Your task to perform on an android device: turn on javascript in the chrome app Image 0: 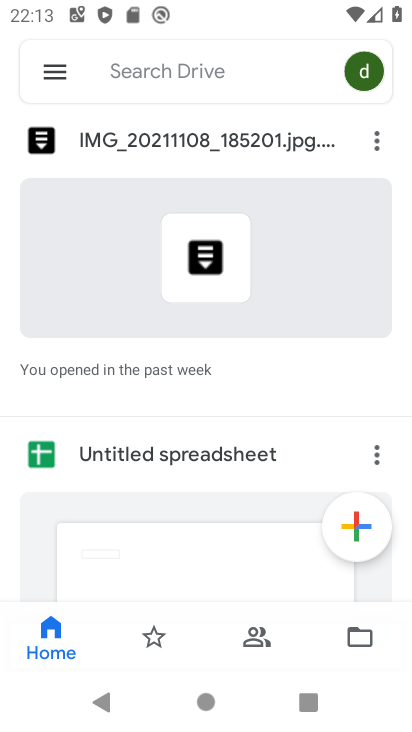
Step 0: press home button
Your task to perform on an android device: turn on javascript in the chrome app Image 1: 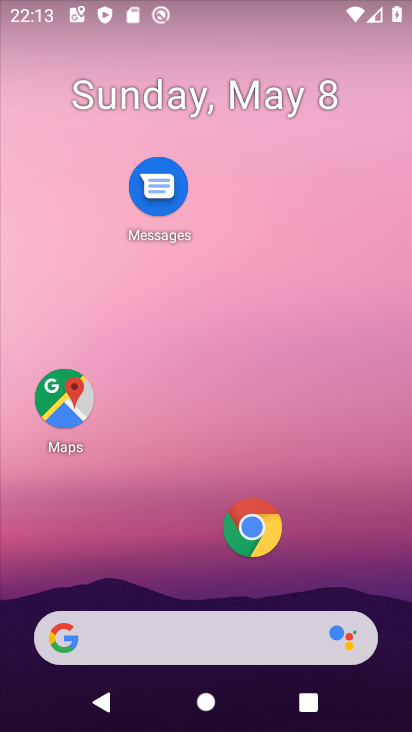
Step 1: click (249, 524)
Your task to perform on an android device: turn on javascript in the chrome app Image 2: 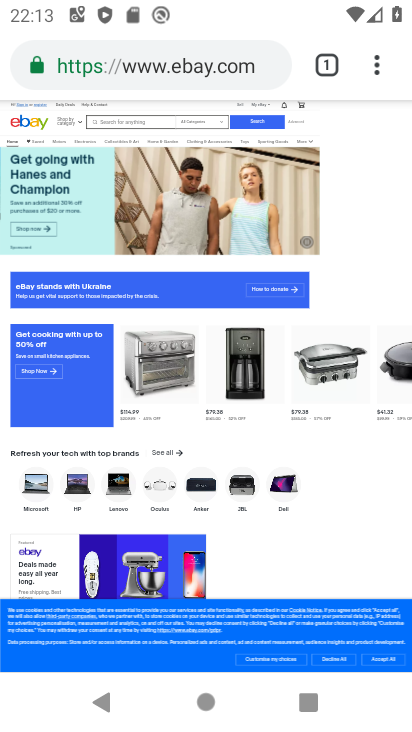
Step 2: click (369, 68)
Your task to perform on an android device: turn on javascript in the chrome app Image 3: 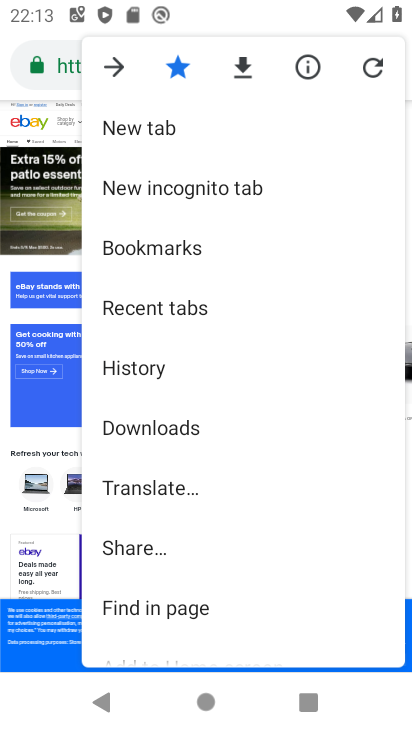
Step 3: drag from (371, 534) to (323, 194)
Your task to perform on an android device: turn on javascript in the chrome app Image 4: 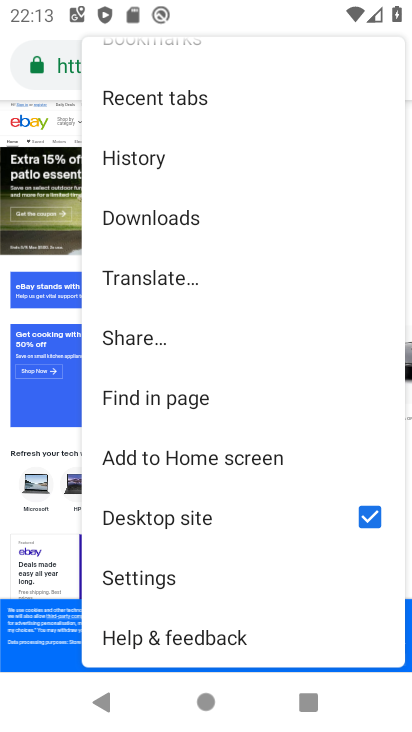
Step 4: click (204, 582)
Your task to perform on an android device: turn on javascript in the chrome app Image 5: 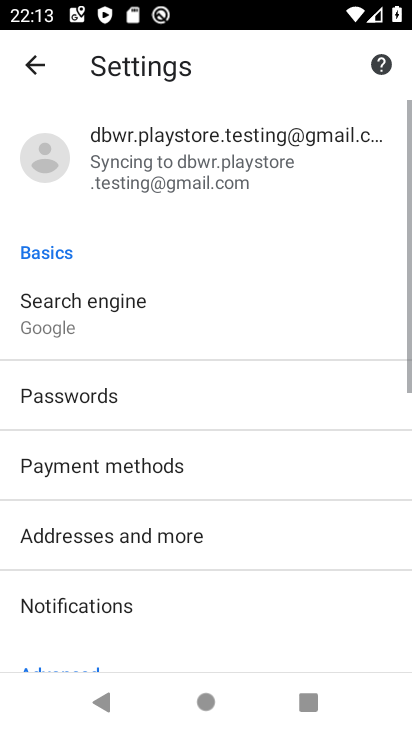
Step 5: drag from (204, 576) to (255, 216)
Your task to perform on an android device: turn on javascript in the chrome app Image 6: 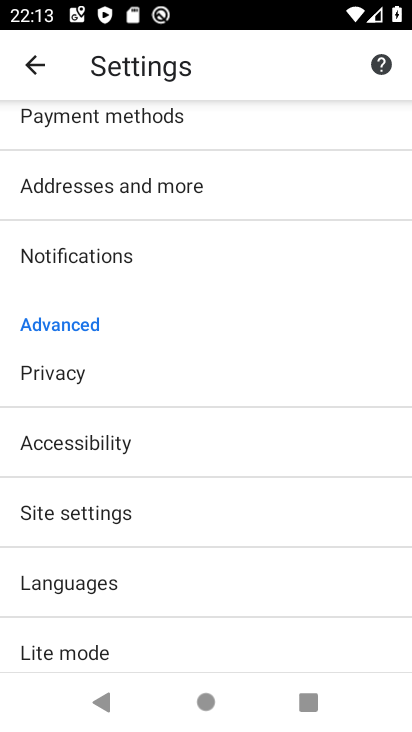
Step 6: click (83, 509)
Your task to perform on an android device: turn on javascript in the chrome app Image 7: 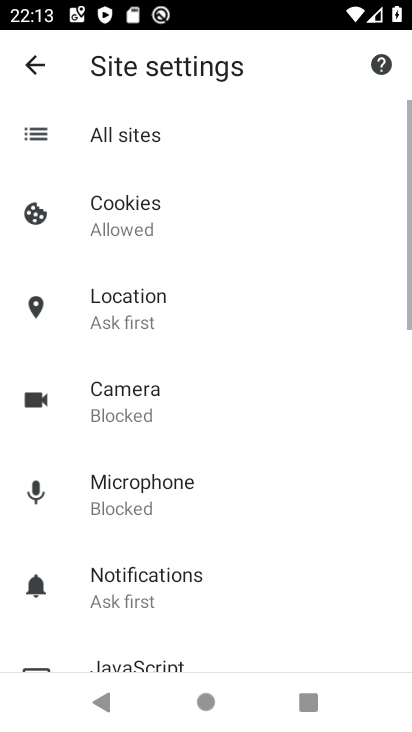
Step 7: drag from (190, 478) to (190, 367)
Your task to perform on an android device: turn on javascript in the chrome app Image 8: 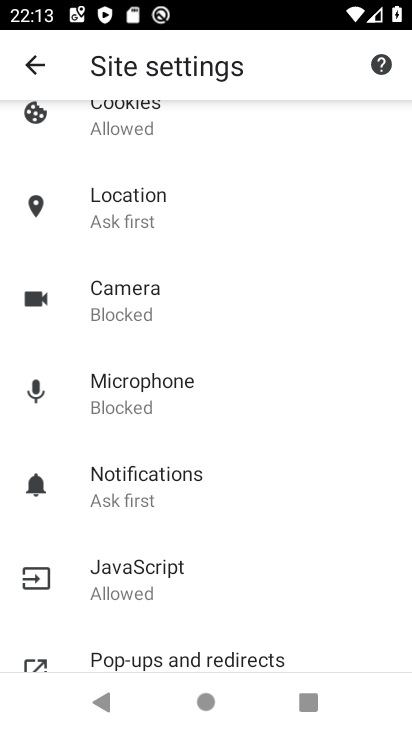
Step 8: click (152, 558)
Your task to perform on an android device: turn on javascript in the chrome app Image 9: 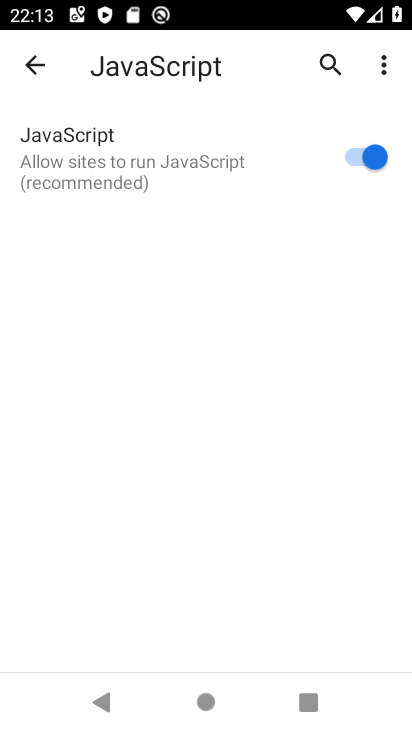
Step 9: task complete